Your task to perform on an android device: Go to CNN.com Image 0: 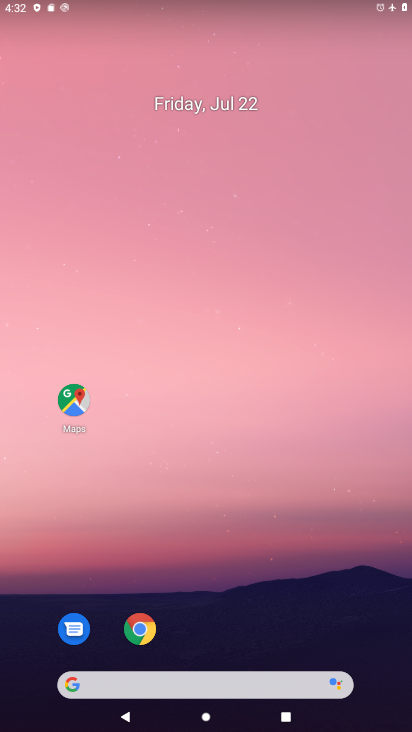
Step 0: click (149, 625)
Your task to perform on an android device: Go to CNN.com Image 1: 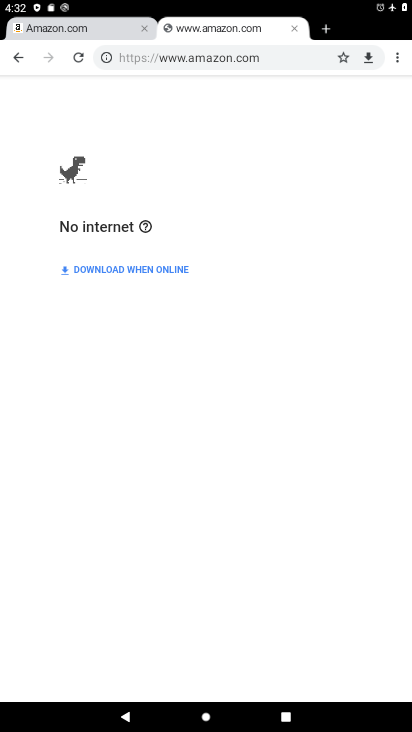
Step 1: click (220, 53)
Your task to perform on an android device: Go to CNN.com Image 2: 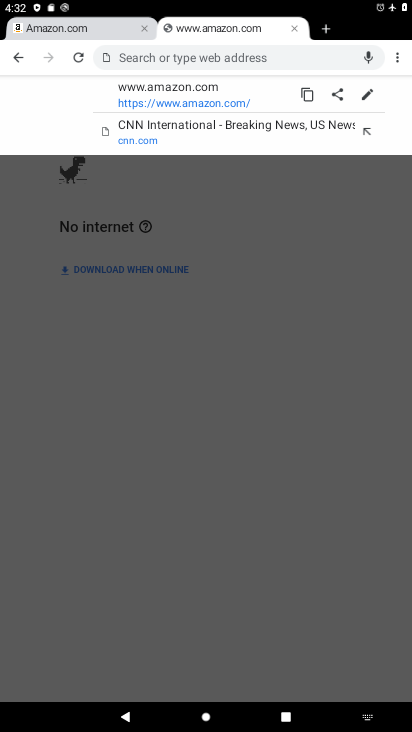
Step 2: type "cnn.com"
Your task to perform on an android device: Go to CNN.com Image 3: 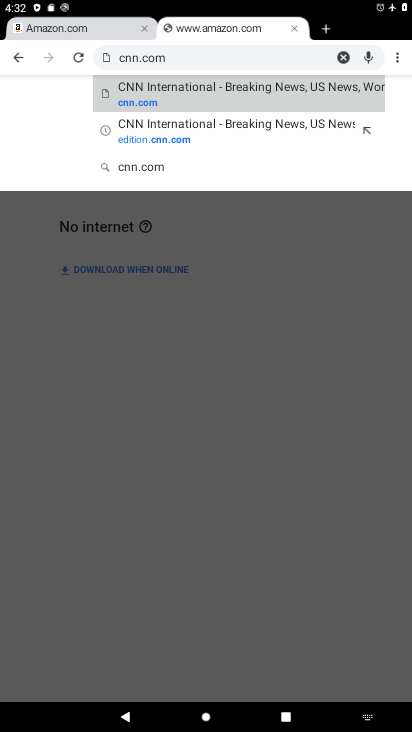
Step 3: click (191, 84)
Your task to perform on an android device: Go to CNN.com Image 4: 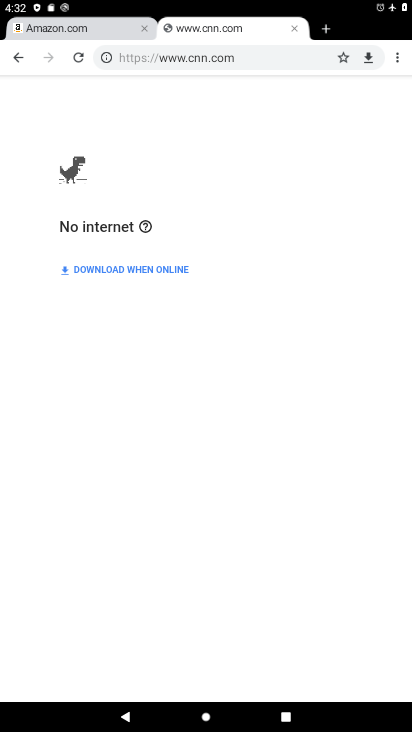
Step 4: task complete